Your task to perform on an android device: Open settings Image 0: 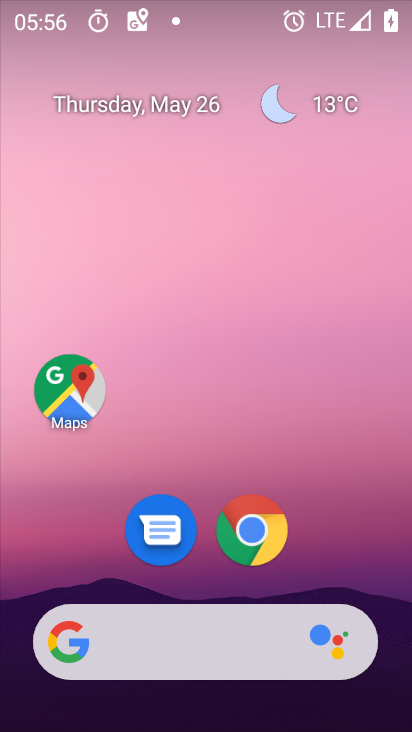
Step 0: drag from (61, 677) to (144, 11)
Your task to perform on an android device: Open settings Image 1: 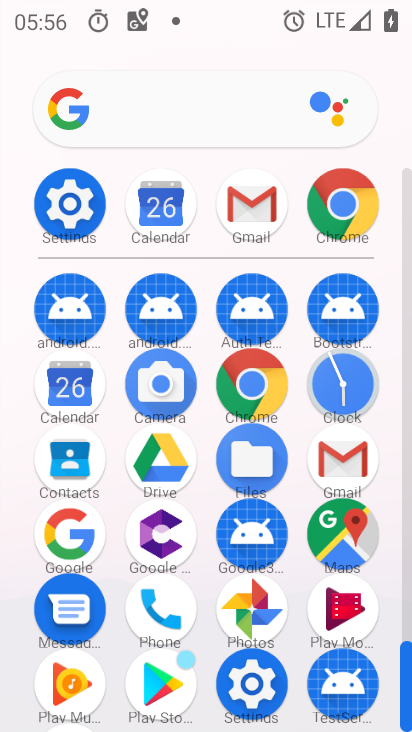
Step 1: click (68, 181)
Your task to perform on an android device: Open settings Image 2: 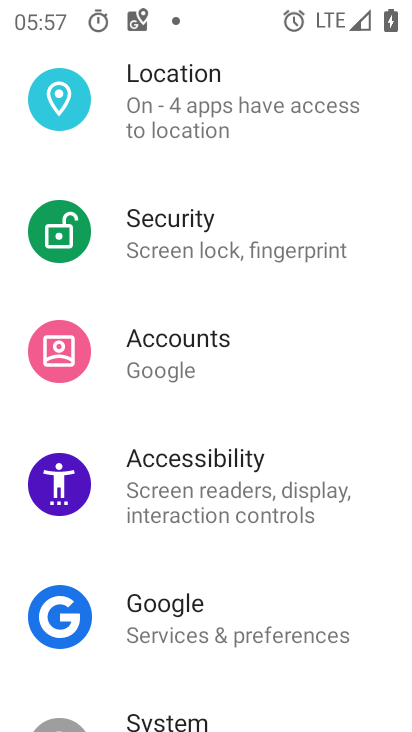
Step 2: task complete